Your task to perform on an android device: What time is it in New York? Image 0: 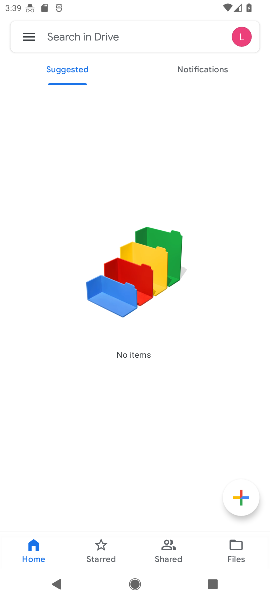
Step 0: press home button
Your task to perform on an android device: What time is it in New York? Image 1: 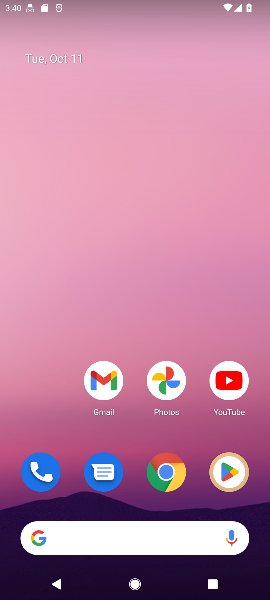
Step 1: click (147, 471)
Your task to perform on an android device: What time is it in New York? Image 2: 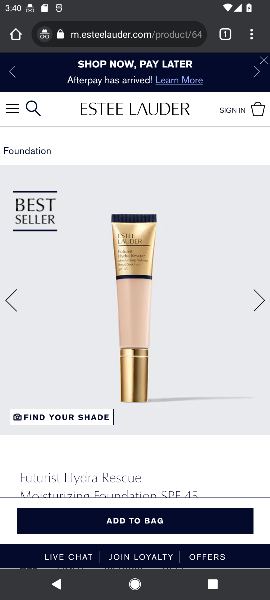
Step 2: click (112, 30)
Your task to perform on an android device: What time is it in New York? Image 3: 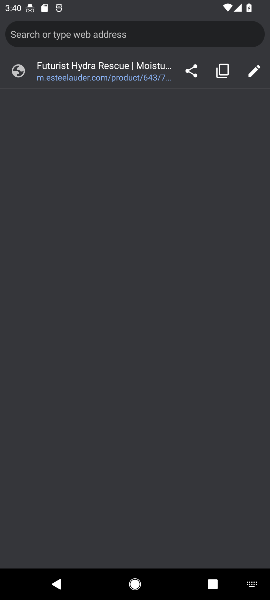
Step 3: type "What time is it in New York?"
Your task to perform on an android device: What time is it in New York? Image 4: 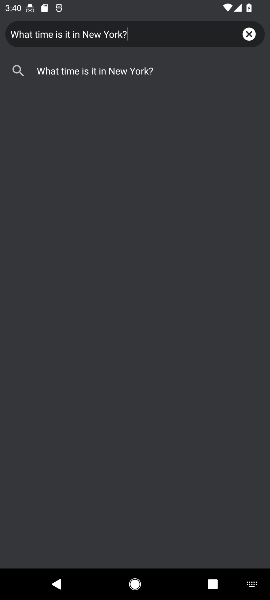
Step 4: click (60, 78)
Your task to perform on an android device: What time is it in New York? Image 5: 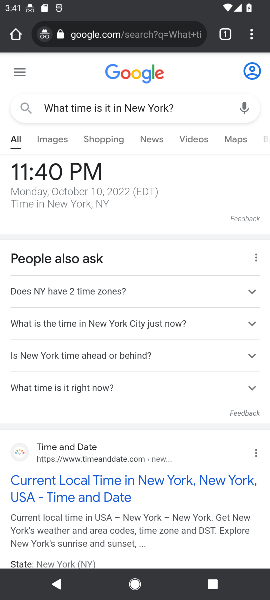
Step 5: task complete